Your task to perform on an android device: What's the weather? Image 0: 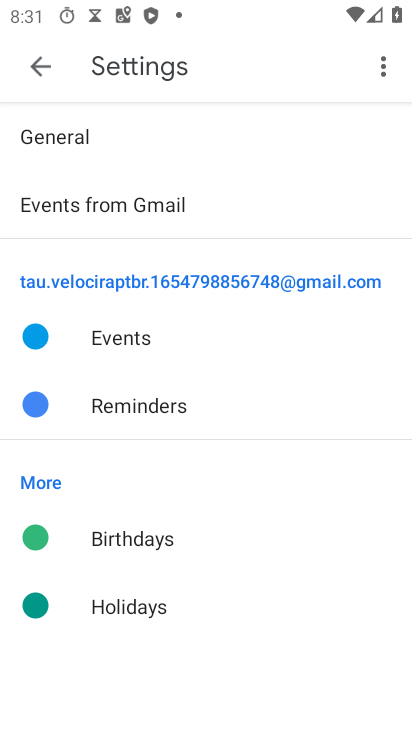
Step 0: press home button
Your task to perform on an android device: What's the weather? Image 1: 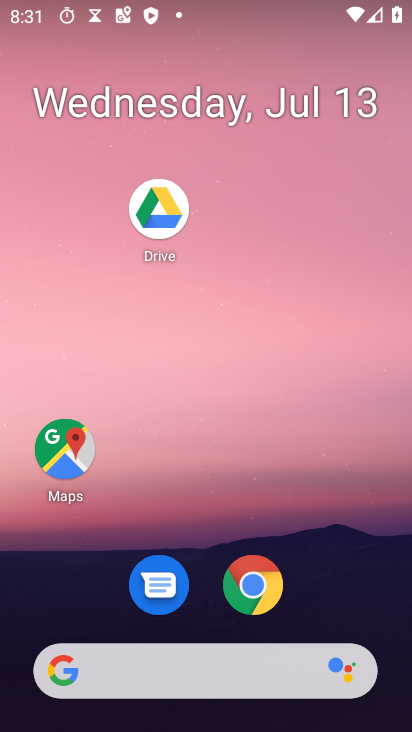
Step 1: click (206, 677)
Your task to perform on an android device: What's the weather? Image 2: 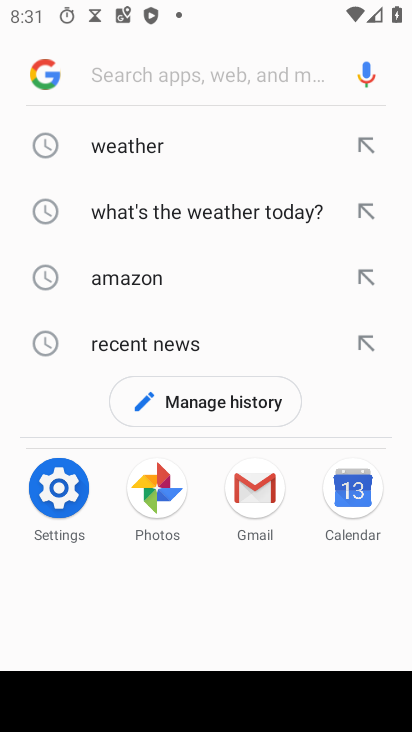
Step 2: click (155, 148)
Your task to perform on an android device: What's the weather? Image 3: 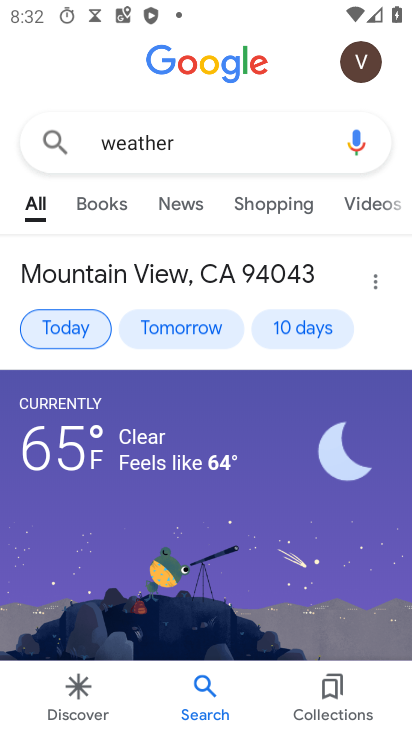
Step 3: task complete